Your task to perform on an android device: What's on my calendar tomorrow? Image 0: 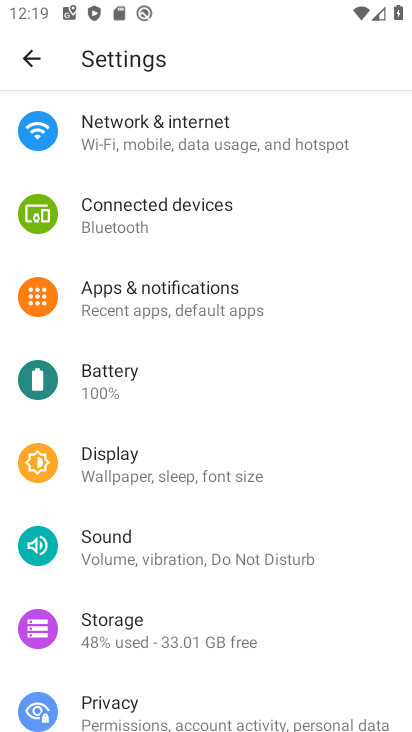
Step 0: press back button
Your task to perform on an android device: What's on my calendar tomorrow? Image 1: 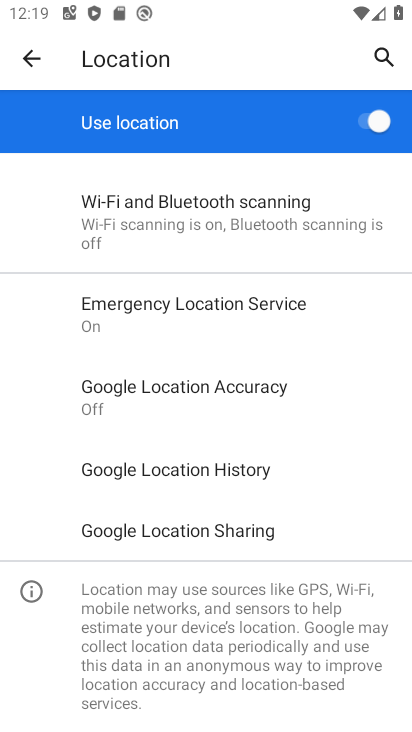
Step 1: press home button
Your task to perform on an android device: What's on my calendar tomorrow? Image 2: 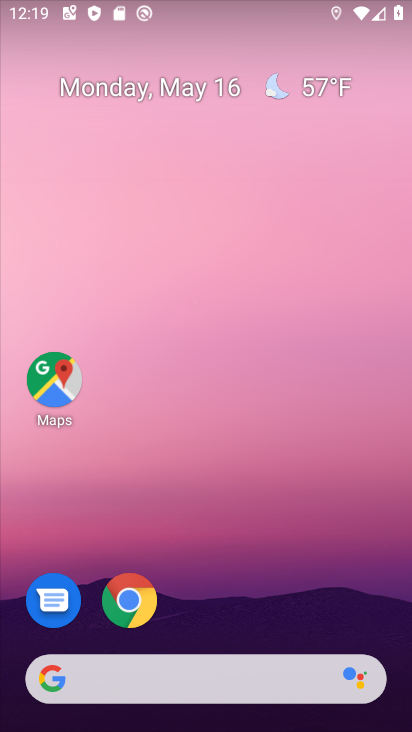
Step 2: drag from (270, 552) to (268, 14)
Your task to perform on an android device: What's on my calendar tomorrow? Image 3: 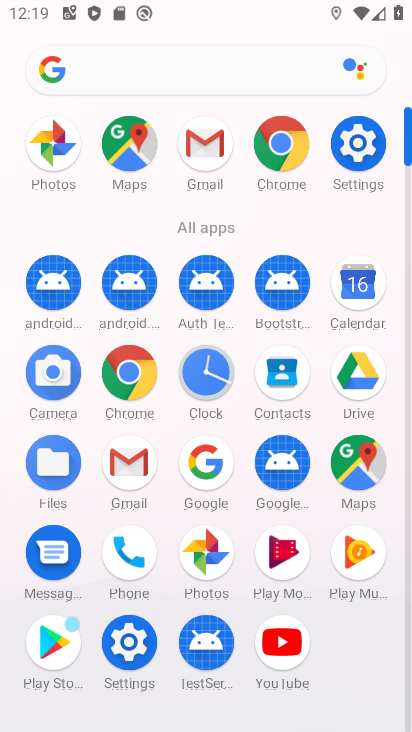
Step 3: click (351, 287)
Your task to perform on an android device: What's on my calendar tomorrow? Image 4: 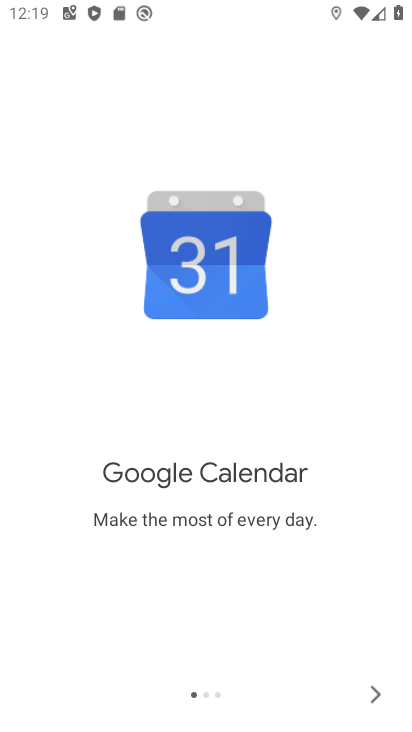
Step 4: click (378, 697)
Your task to perform on an android device: What's on my calendar tomorrow? Image 5: 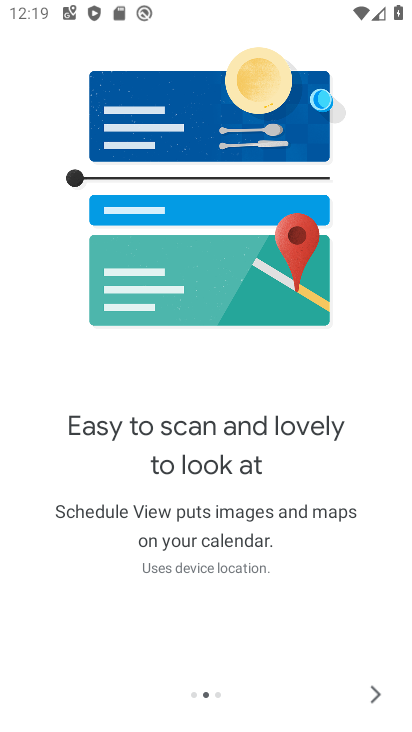
Step 5: click (373, 689)
Your task to perform on an android device: What's on my calendar tomorrow? Image 6: 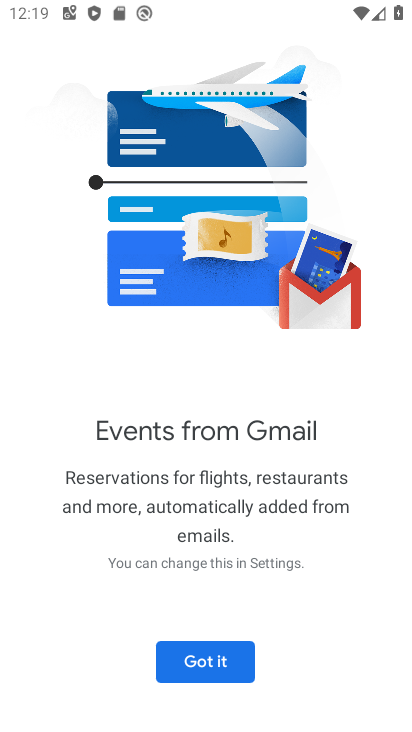
Step 6: click (212, 662)
Your task to perform on an android device: What's on my calendar tomorrow? Image 7: 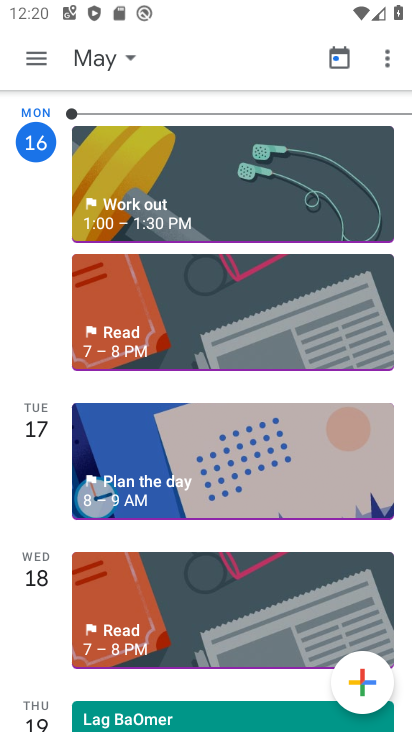
Step 7: drag from (271, 557) to (306, 461)
Your task to perform on an android device: What's on my calendar tomorrow? Image 8: 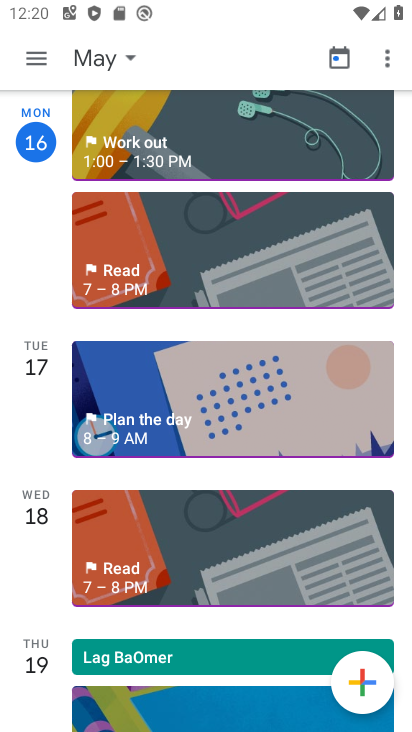
Step 8: click (132, 424)
Your task to perform on an android device: What's on my calendar tomorrow? Image 9: 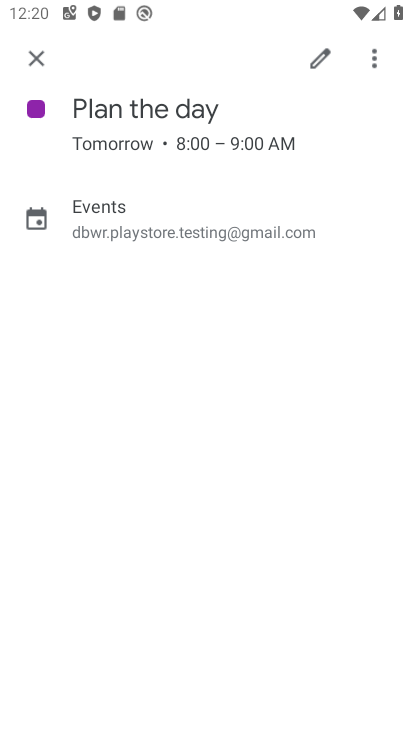
Step 9: task complete